Your task to perform on an android device: check android version Image 0: 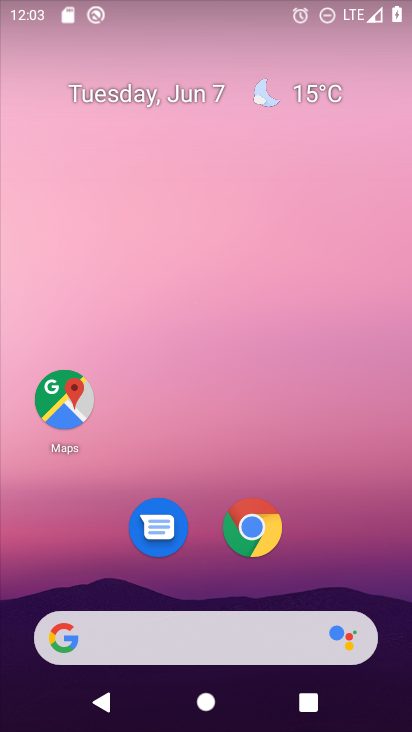
Step 0: drag from (342, 554) to (348, 90)
Your task to perform on an android device: check android version Image 1: 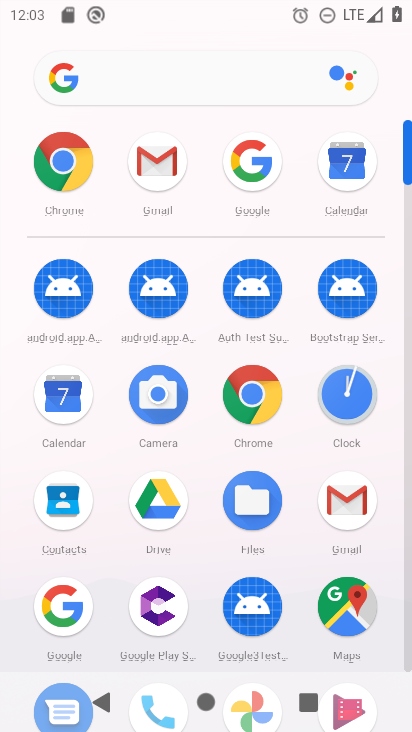
Step 1: drag from (200, 532) to (187, 289)
Your task to perform on an android device: check android version Image 2: 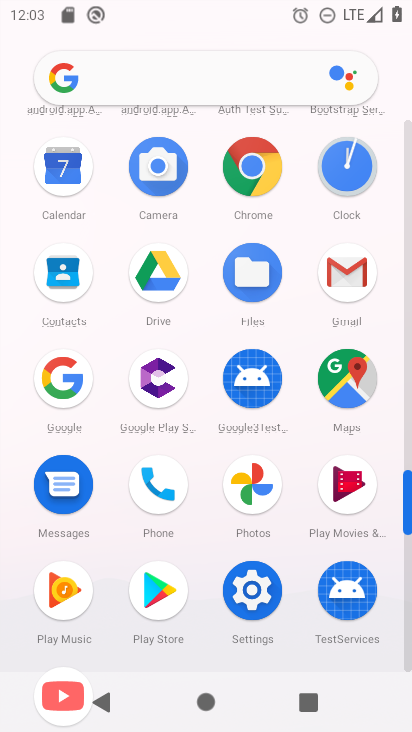
Step 2: drag from (200, 488) to (206, 357)
Your task to perform on an android device: check android version Image 3: 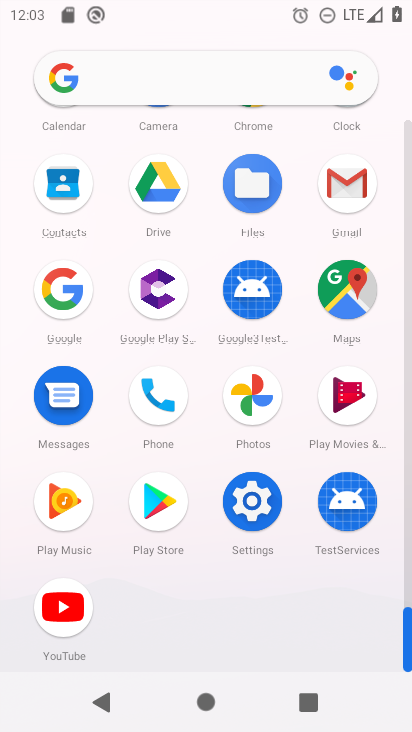
Step 3: click (258, 523)
Your task to perform on an android device: check android version Image 4: 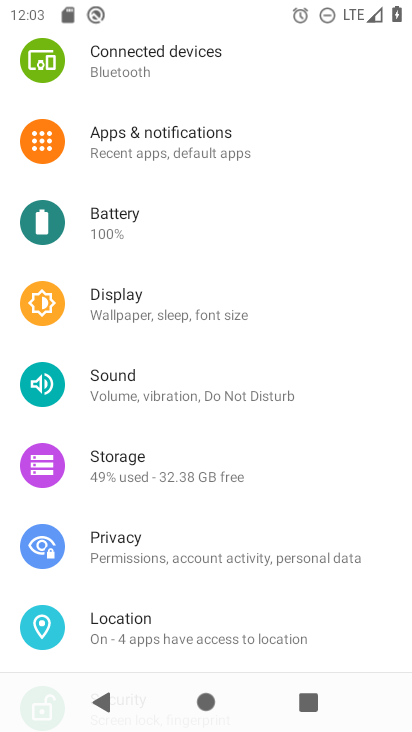
Step 4: drag from (323, 205) to (326, 343)
Your task to perform on an android device: check android version Image 5: 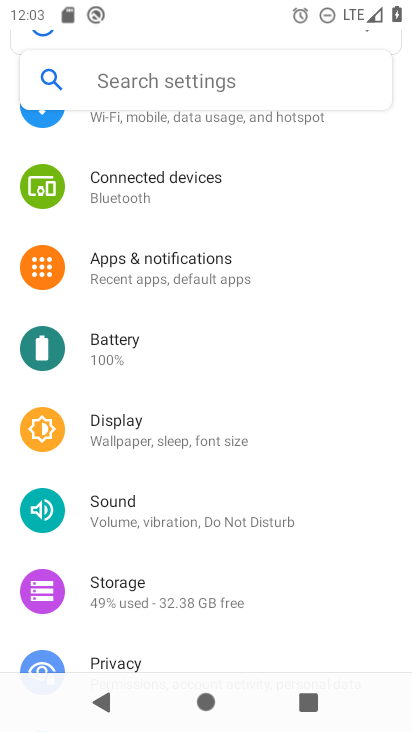
Step 5: drag from (314, 190) to (321, 313)
Your task to perform on an android device: check android version Image 6: 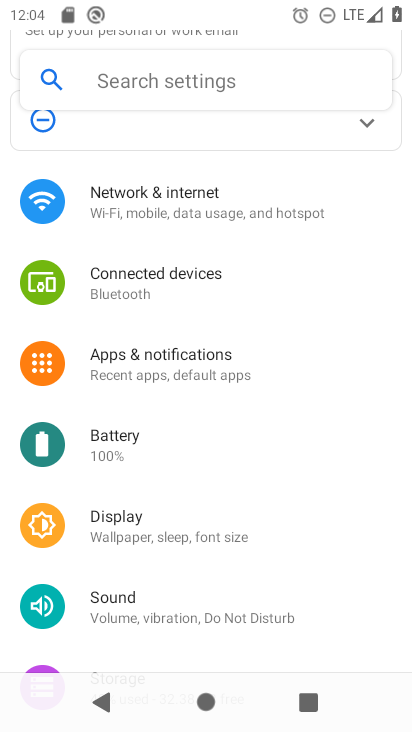
Step 6: drag from (332, 174) to (337, 345)
Your task to perform on an android device: check android version Image 7: 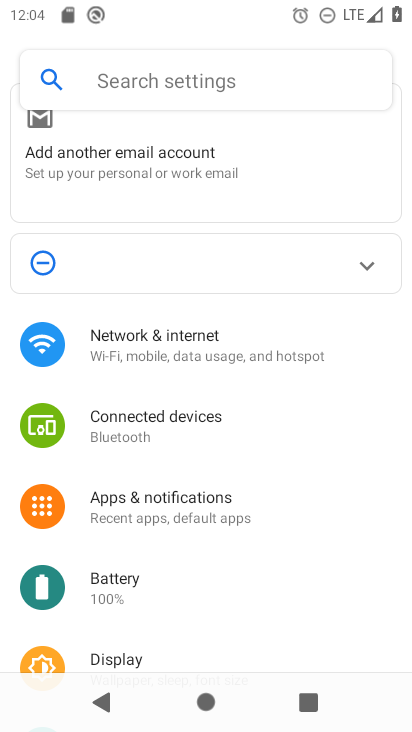
Step 7: drag from (296, 162) to (315, 367)
Your task to perform on an android device: check android version Image 8: 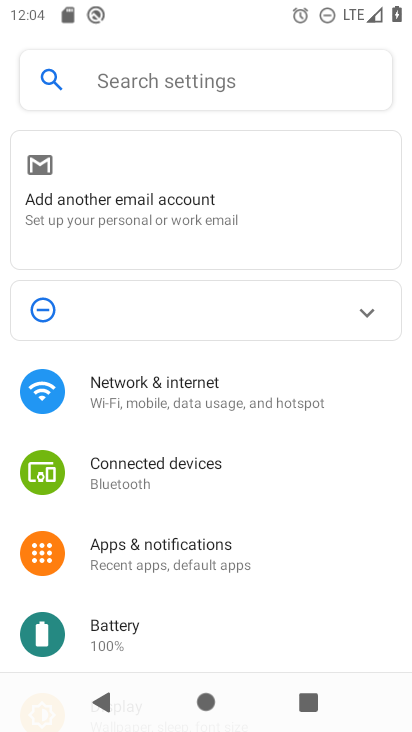
Step 8: drag from (327, 494) to (319, 365)
Your task to perform on an android device: check android version Image 9: 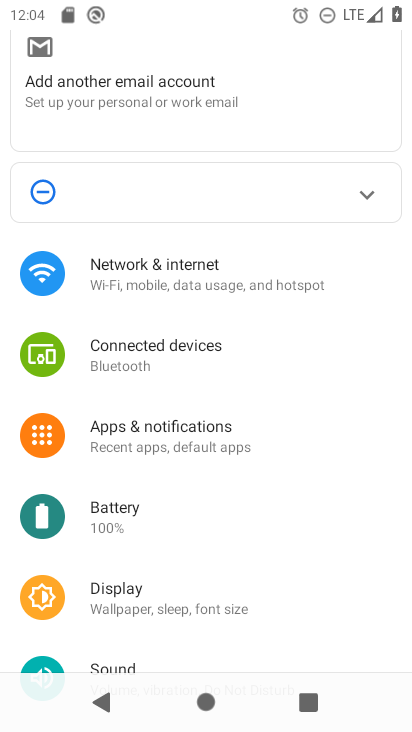
Step 9: drag from (322, 473) to (301, 340)
Your task to perform on an android device: check android version Image 10: 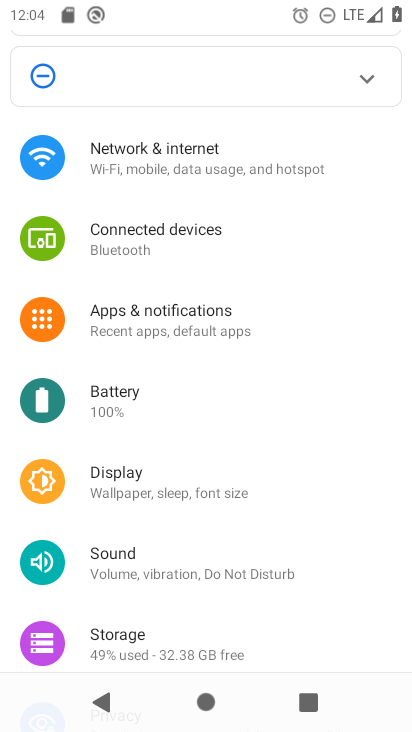
Step 10: drag from (314, 457) to (314, 349)
Your task to perform on an android device: check android version Image 11: 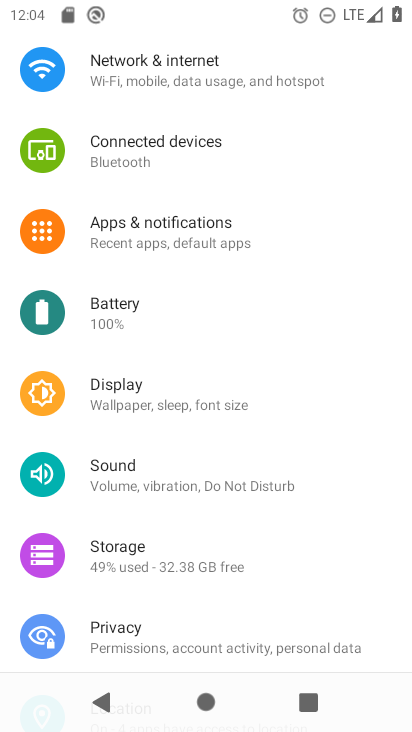
Step 11: drag from (335, 467) to (337, 326)
Your task to perform on an android device: check android version Image 12: 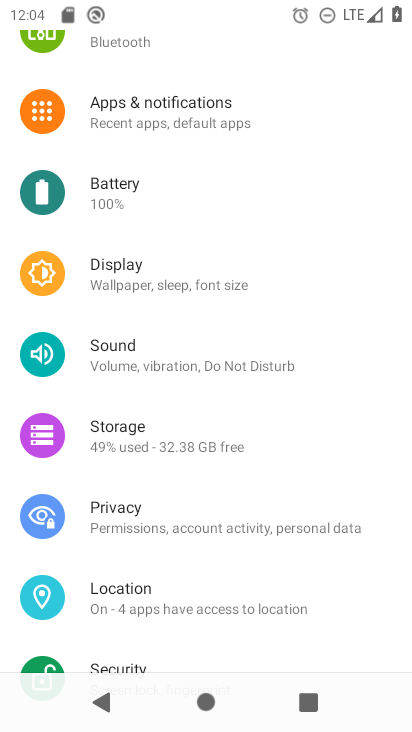
Step 12: drag from (358, 463) to (361, 310)
Your task to perform on an android device: check android version Image 13: 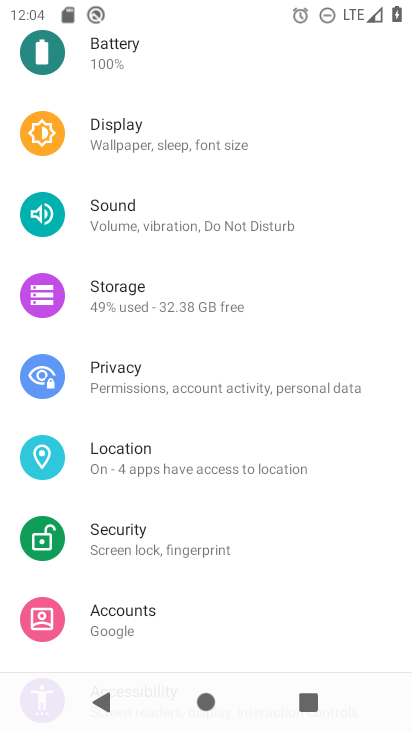
Step 13: drag from (363, 483) to (347, 324)
Your task to perform on an android device: check android version Image 14: 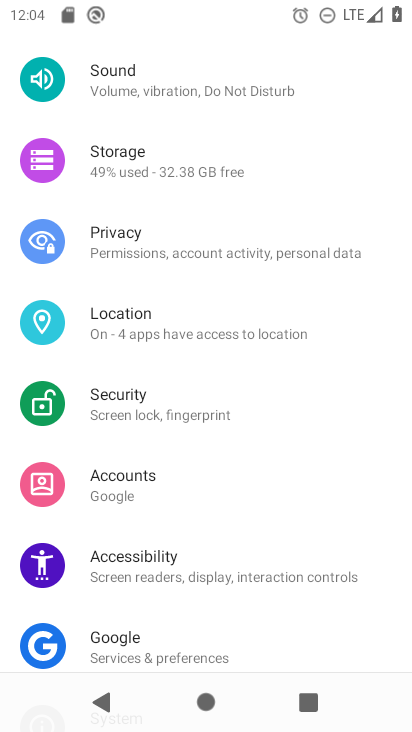
Step 14: drag from (357, 490) to (344, 302)
Your task to perform on an android device: check android version Image 15: 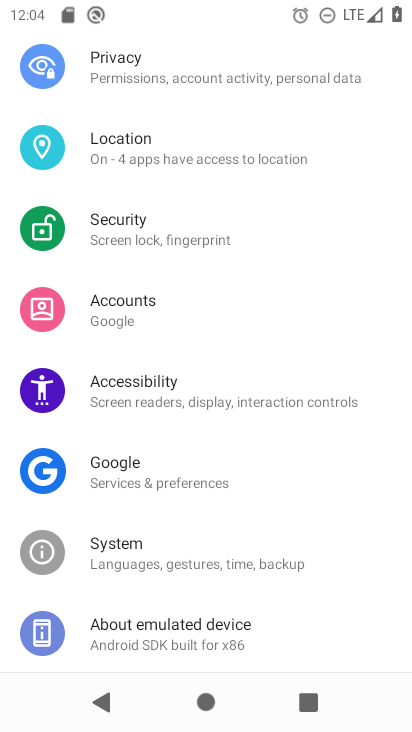
Step 15: drag from (358, 502) to (344, 325)
Your task to perform on an android device: check android version Image 16: 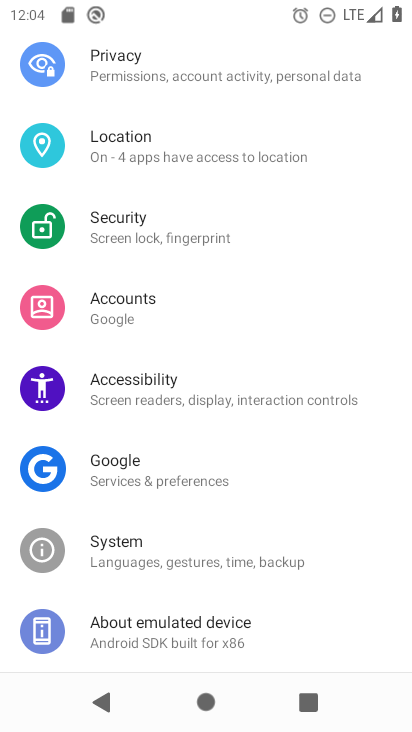
Step 16: click (158, 543)
Your task to perform on an android device: check android version Image 17: 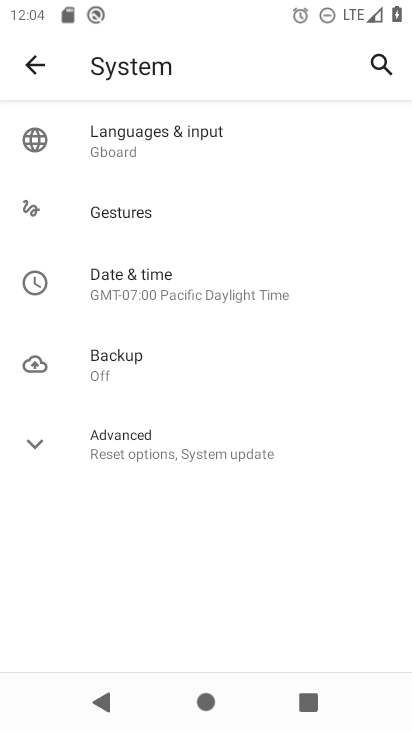
Step 17: click (178, 434)
Your task to perform on an android device: check android version Image 18: 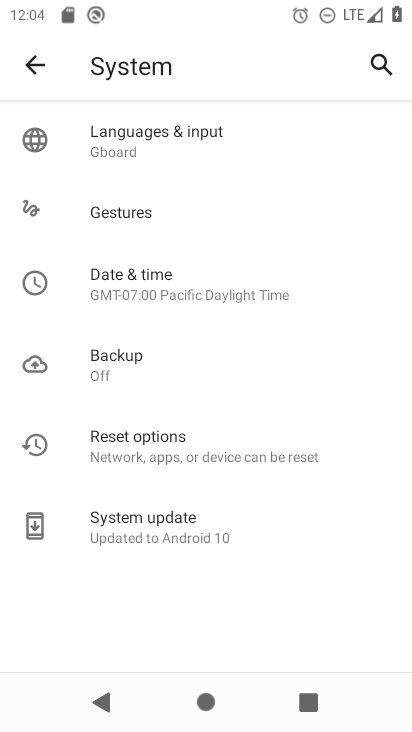
Step 18: task complete